Your task to perform on an android device: turn on bluetooth scan Image 0: 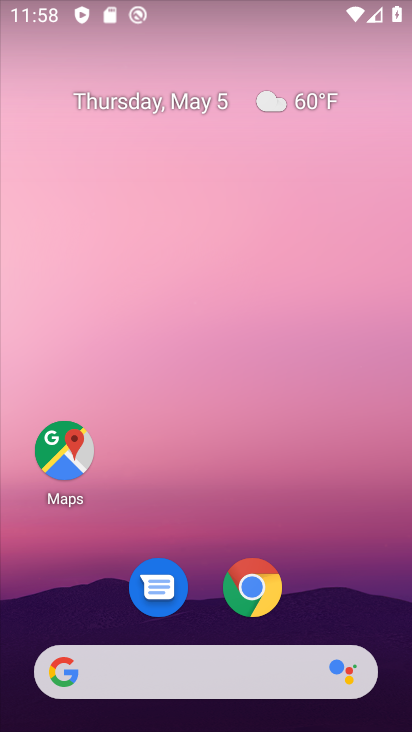
Step 0: click (361, 235)
Your task to perform on an android device: turn on bluetooth scan Image 1: 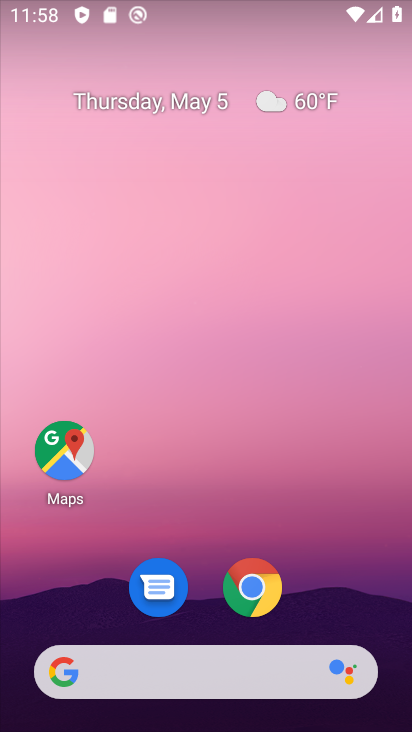
Step 1: drag from (376, 638) to (358, 123)
Your task to perform on an android device: turn on bluetooth scan Image 2: 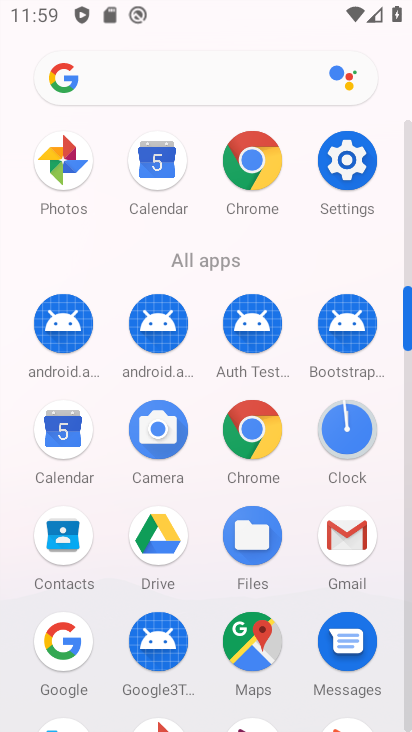
Step 2: click (357, 165)
Your task to perform on an android device: turn on bluetooth scan Image 3: 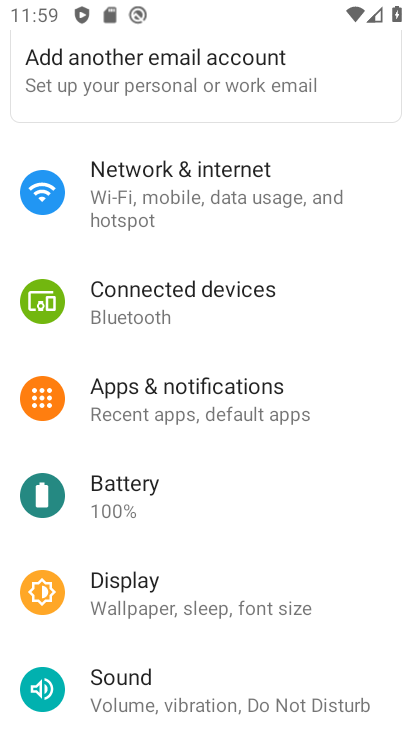
Step 3: drag from (343, 578) to (333, 322)
Your task to perform on an android device: turn on bluetooth scan Image 4: 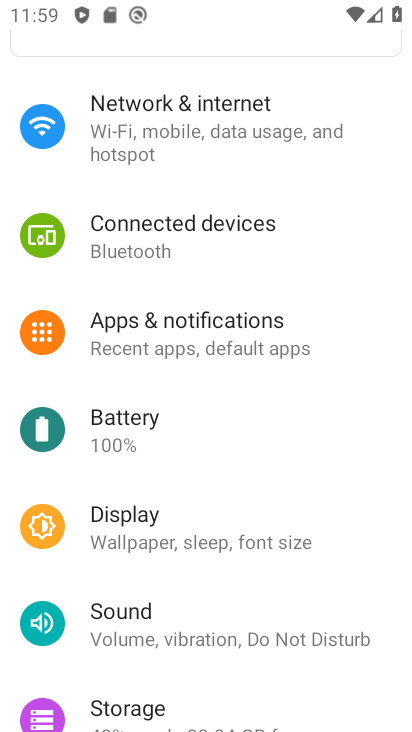
Step 4: drag from (355, 707) to (308, 445)
Your task to perform on an android device: turn on bluetooth scan Image 5: 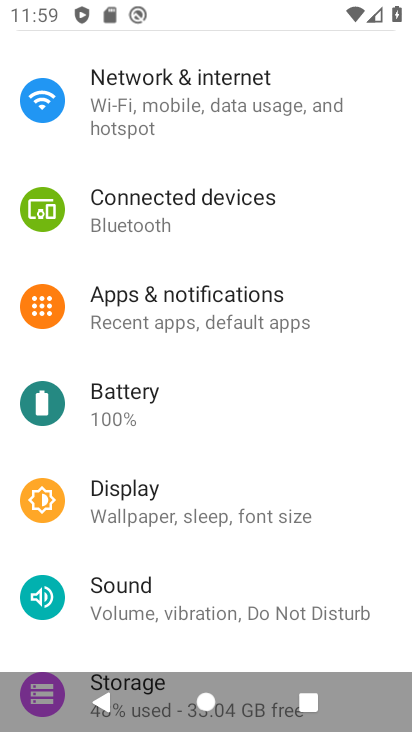
Step 5: drag from (319, 639) to (312, 318)
Your task to perform on an android device: turn on bluetooth scan Image 6: 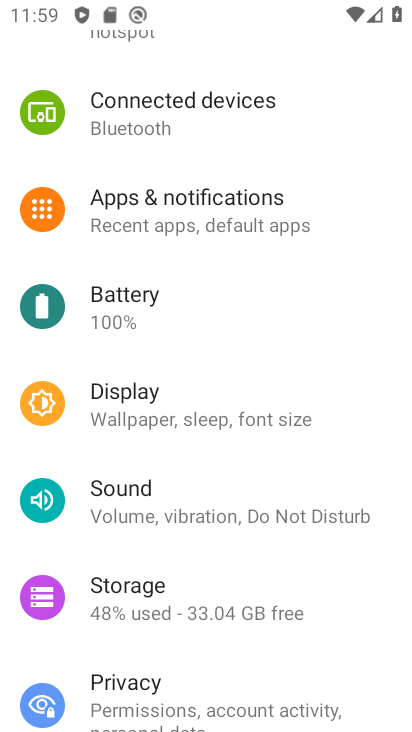
Step 6: drag from (335, 639) to (377, 245)
Your task to perform on an android device: turn on bluetooth scan Image 7: 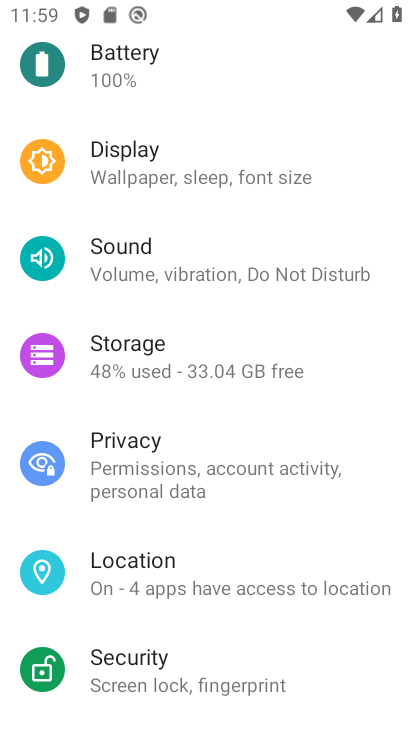
Step 7: drag from (369, 703) to (356, 311)
Your task to perform on an android device: turn on bluetooth scan Image 8: 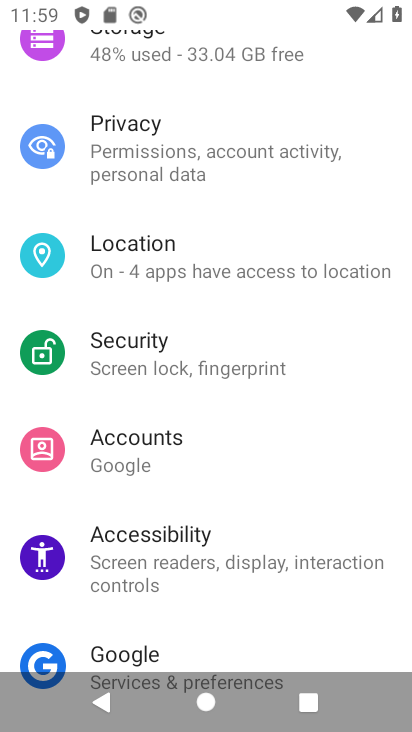
Step 8: drag from (379, 631) to (378, 315)
Your task to perform on an android device: turn on bluetooth scan Image 9: 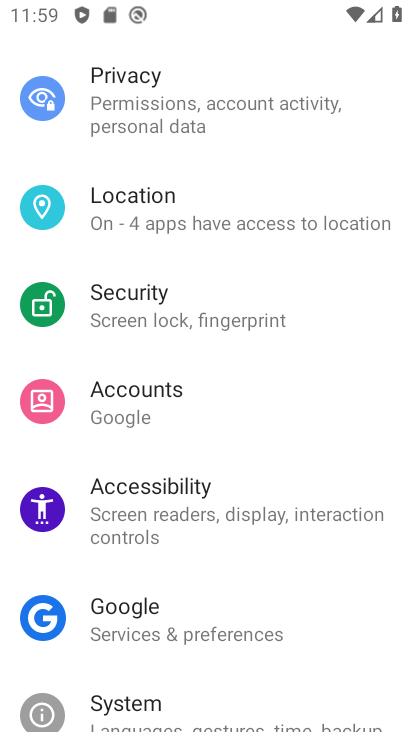
Step 9: click (187, 206)
Your task to perform on an android device: turn on bluetooth scan Image 10: 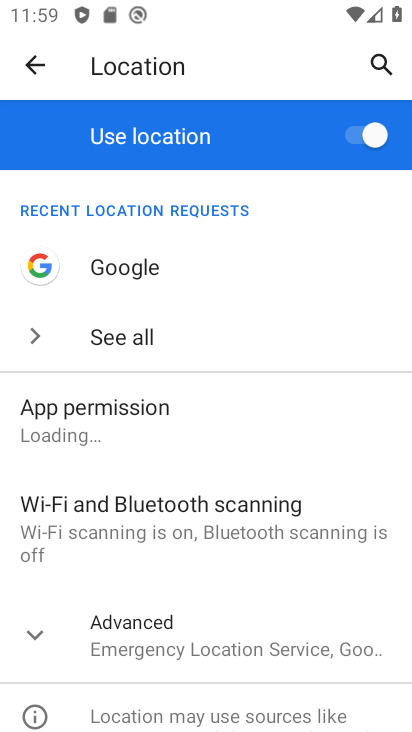
Step 10: click (66, 499)
Your task to perform on an android device: turn on bluetooth scan Image 11: 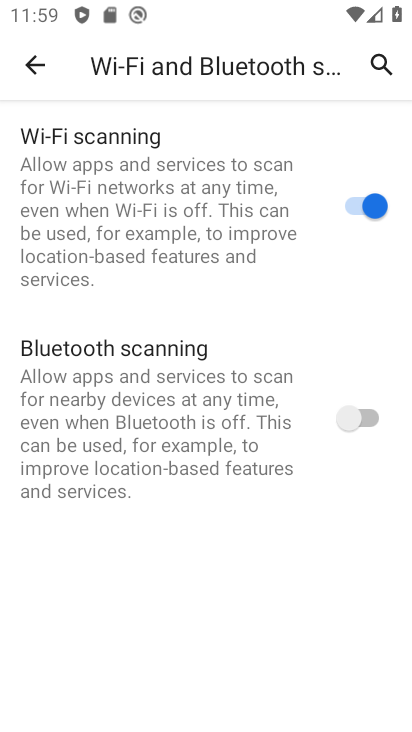
Step 11: click (370, 409)
Your task to perform on an android device: turn on bluetooth scan Image 12: 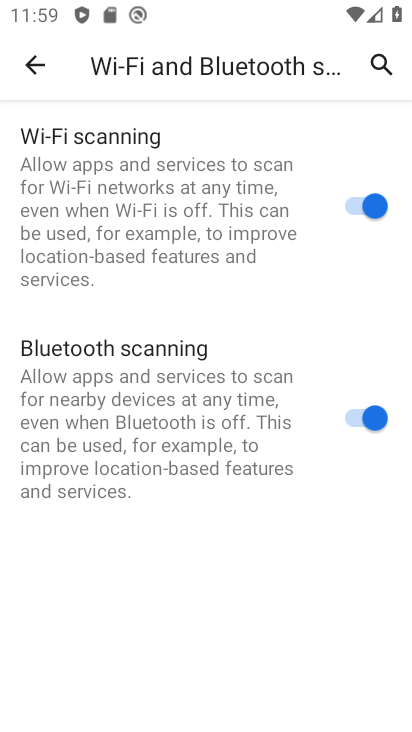
Step 12: task complete